Your task to perform on an android device: set the timer Image 0: 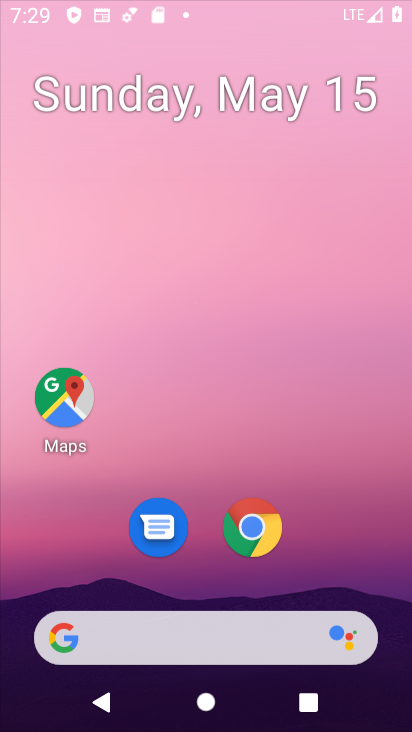
Step 0: click (392, 36)
Your task to perform on an android device: set the timer Image 1: 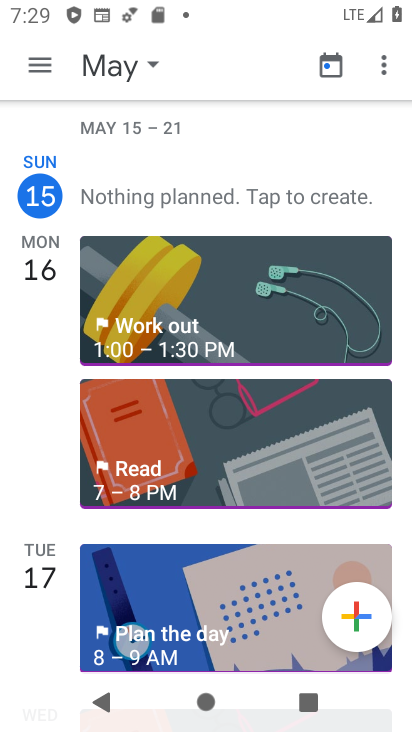
Step 1: press home button
Your task to perform on an android device: set the timer Image 2: 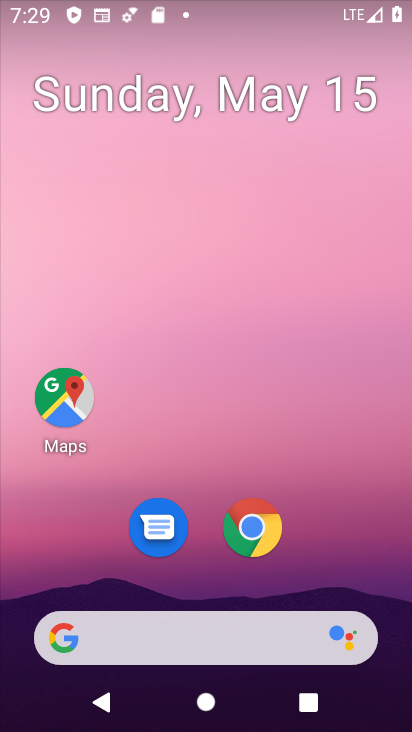
Step 2: drag from (339, 506) to (400, 45)
Your task to perform on an android device: set the timer Image 3: 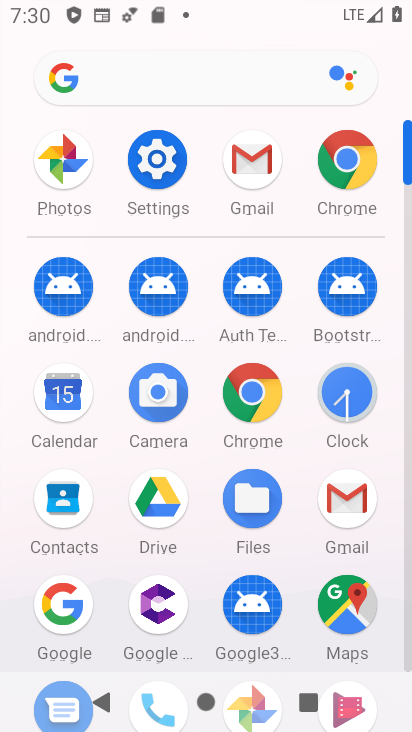
Step 3: click (364, 399)
Your task to perform on an android device: set the timer Image 4: 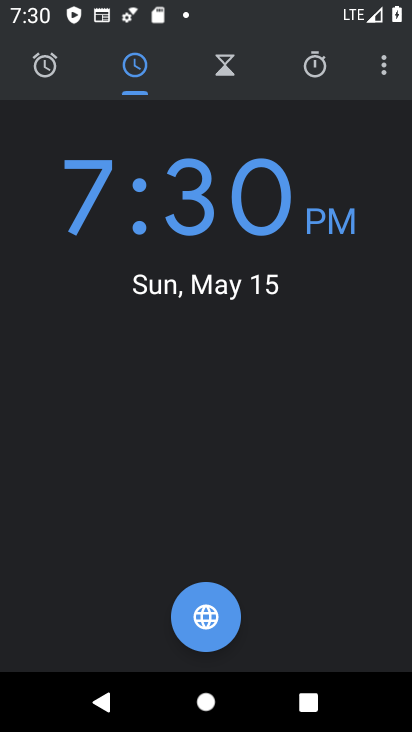
Step 4: click (12, 58)
Your task to perform on an android device: set the timer Image 5: 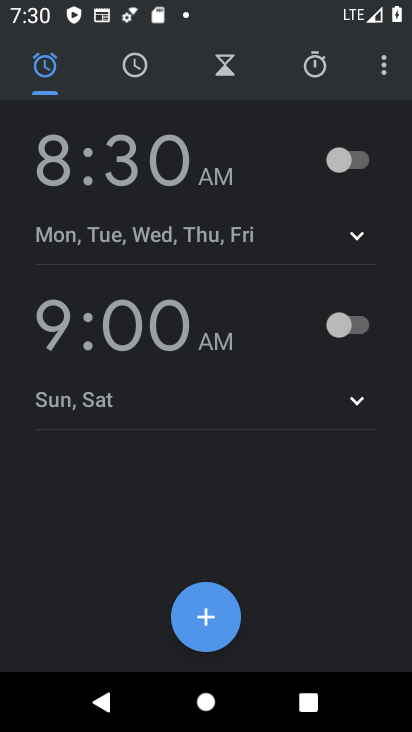
Step 5: click (217, 67)
Your task to perform on an android device: set the timer Image 6: 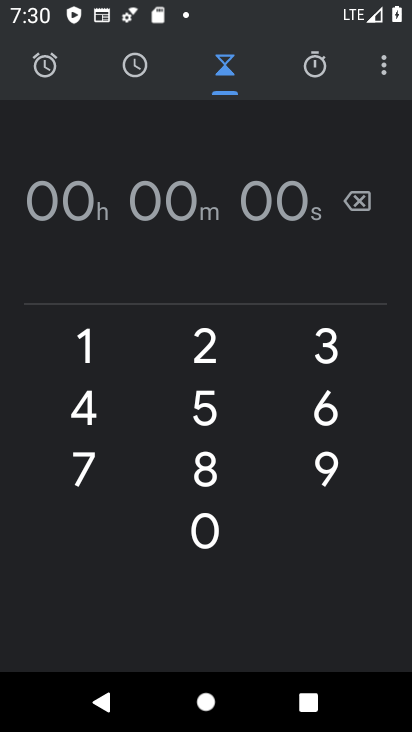
Step 6: click (233, 352)
Your task to perform on an android device: set the timer Image 7: 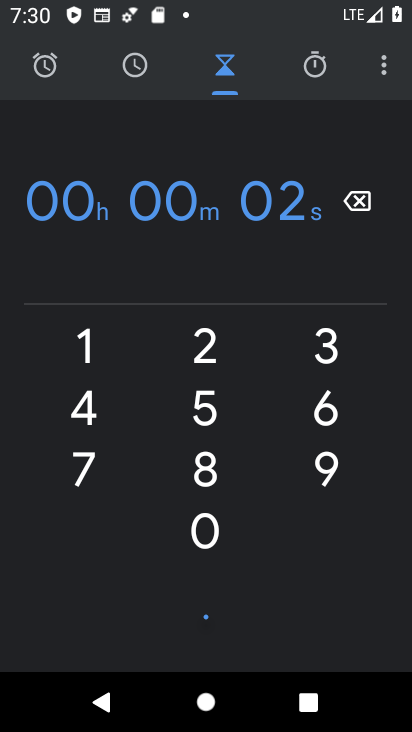
Step 7: click (214, 415)
Your task to perform on an android device: set the timer Image 8: 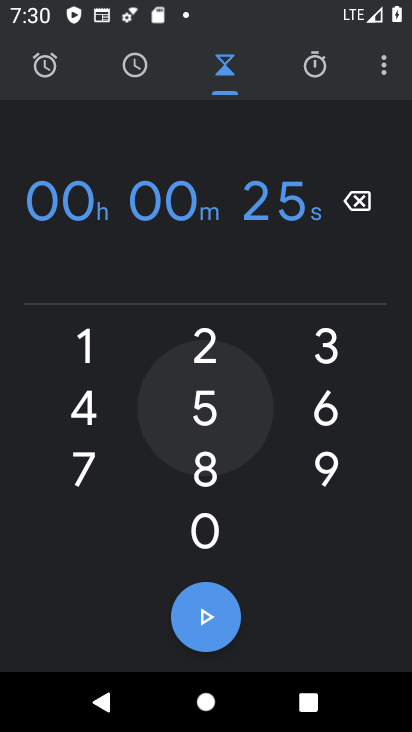
Step 8: click (210, 355)
Your task to perform on an android device: set the timer Image 9: 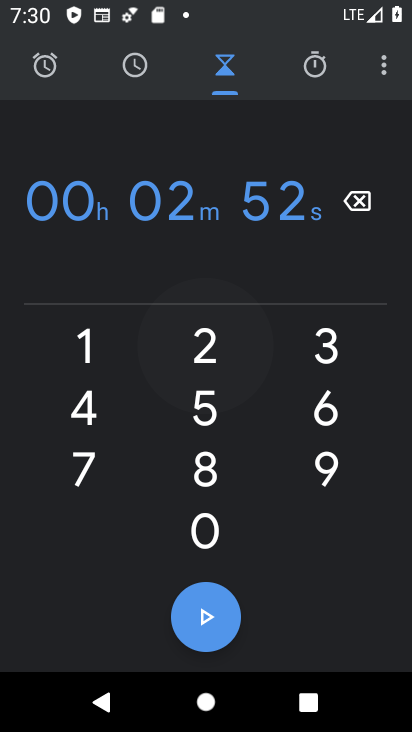
Step 9: click (215, 417)
Your task to perform on an android device: set the timer Image 10: 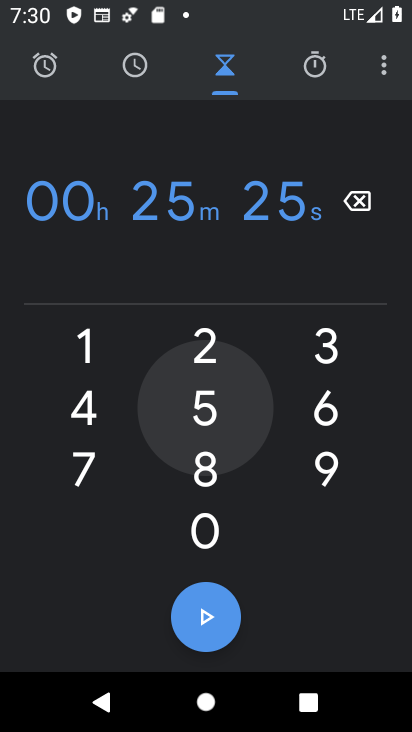
Step 10: click (211, 361)
Your task to perform on an android device: set the timer Image 11: 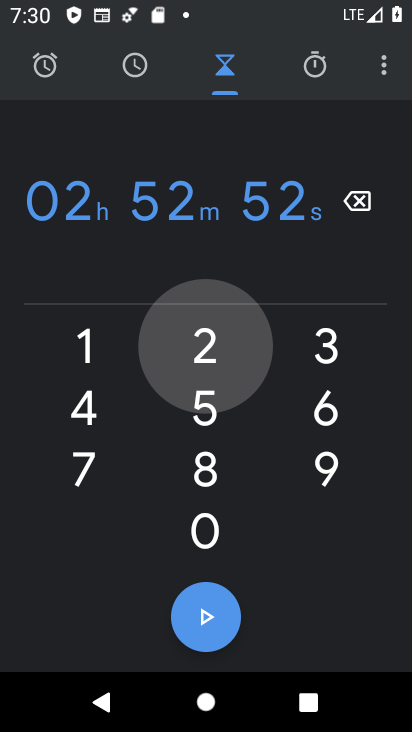
Step 11: click (213, 419)
Your task to perform on an android device: set the timer Image 12: 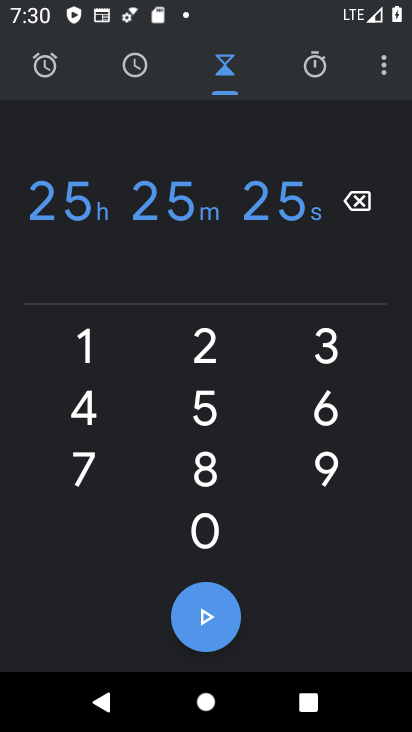
Step 12: click (202, 628)
Your task to perform on an android device: set the timer Image 13: 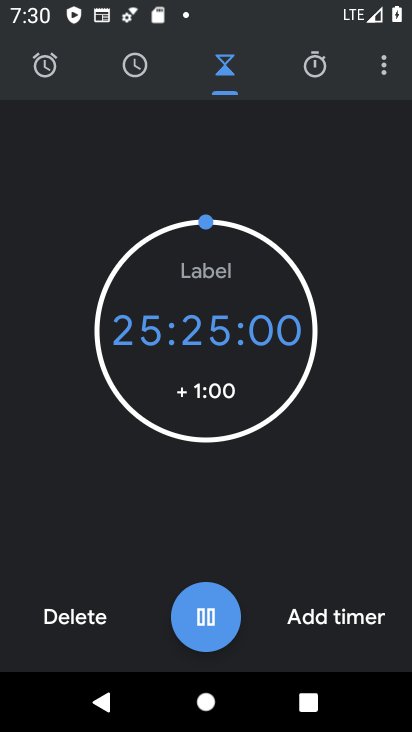
Step 13: task complete